Your task to perform on an android device: turn off priority inbox in the gmail app Image 0: 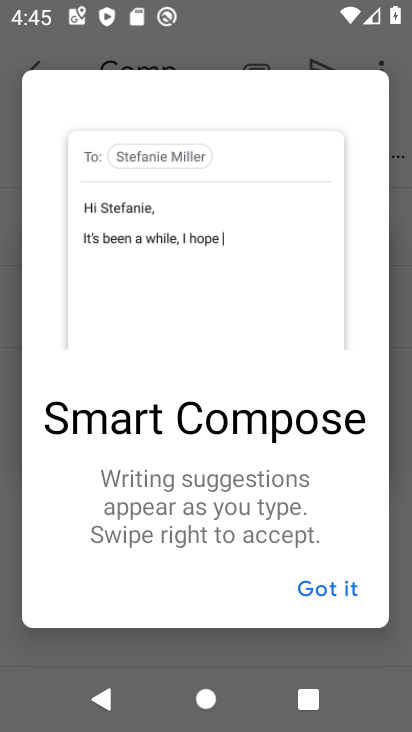
Step 0: press home button
Your task to perform on an android device: turn off priority inbox in the gmail app Image 1: 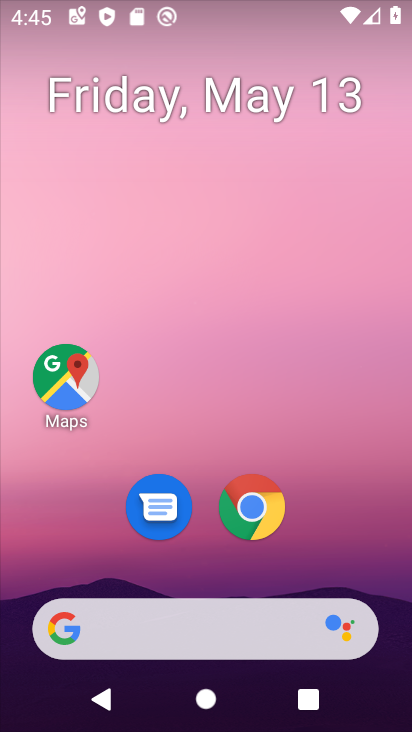
Step 1: drag from (328, 545) to (233, 59)
Your task to perform on an android device: turn off priority inbox in the gmail app Image 2: 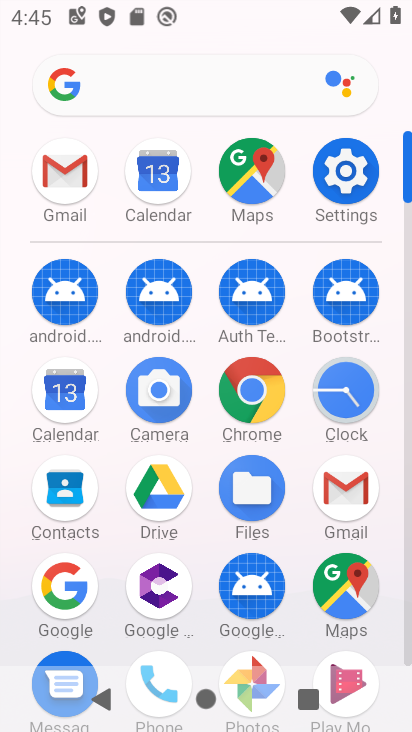
Step 2: click (354, 483)
Your task to perform on an android device: turn off priority inbox in the gmail app Image 3: 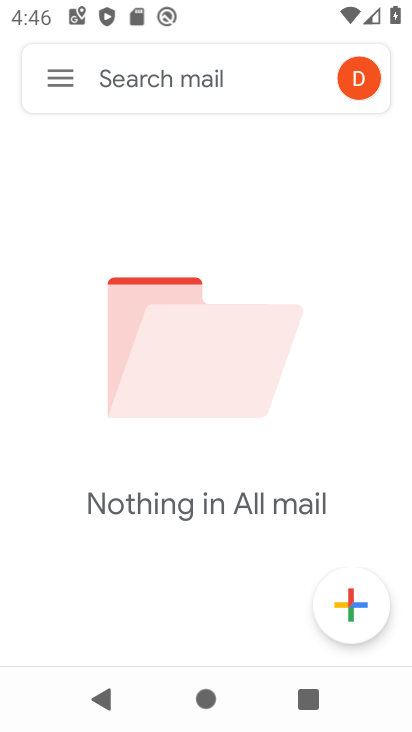
Step 3: click (57, 75)
Your task to perform on an android device: turn off priority inbox in the gmail app Image 4: 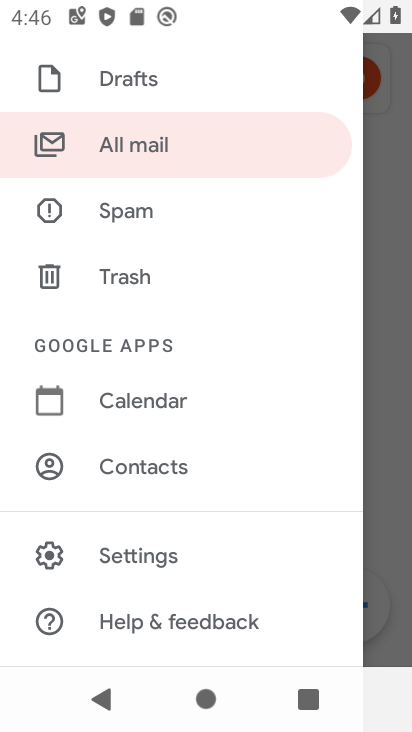
Step 4: click (136, 557)
Your task to perform on an android device: turn off priority inbox in the gmail app Image 5: 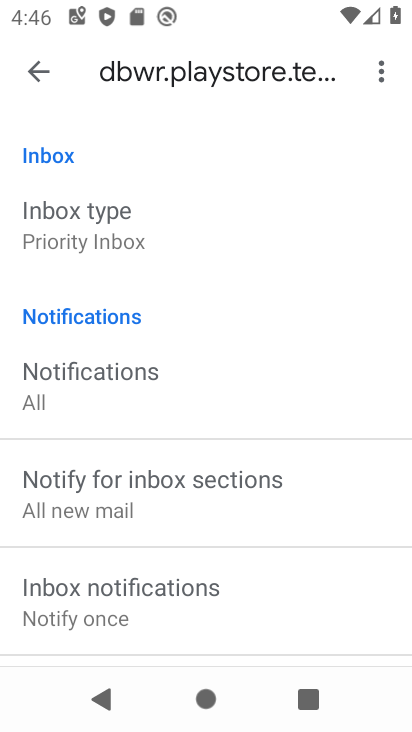
Step 5: click (101, 231)
Your task to perform on an android device: turn off priority inbox in the gmail app Image 6: 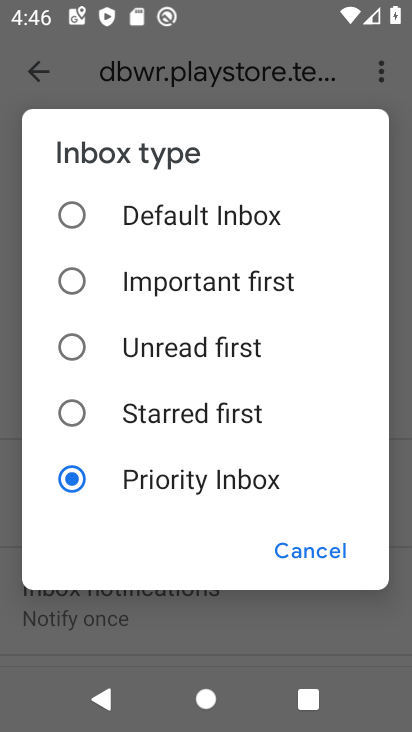
Step 6: click (193, 215)
Your task to perform on an android device: turn off priority inbox in the gmail app Image 7: 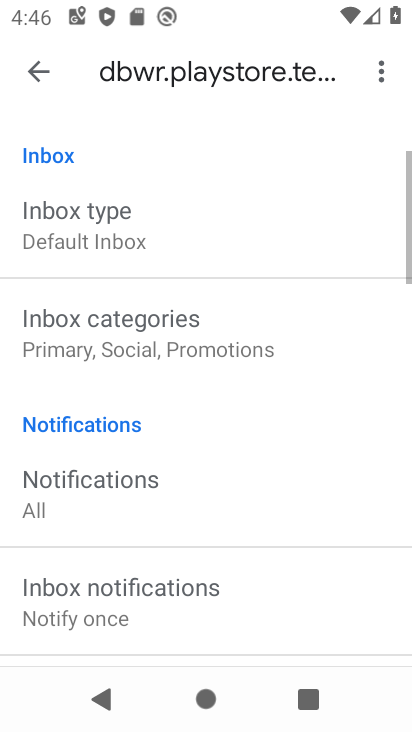
Step 7: task complete